Your task to perform on an android device: change your default location settings in chrome Image 0: 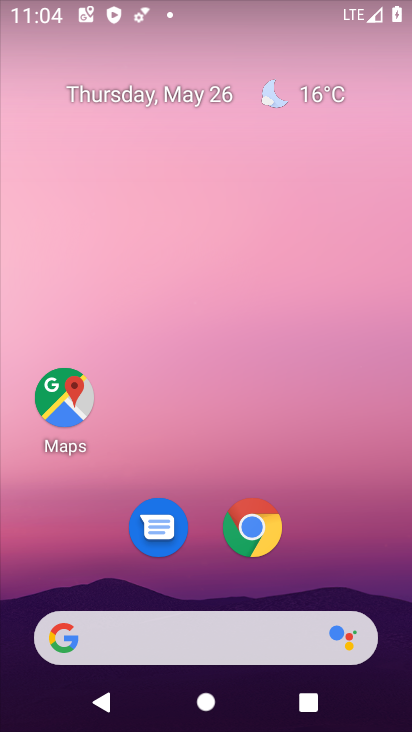
Step 0: click (250, 505)
Your task to perform on an android device: change your default location settings in chrome Image 1: 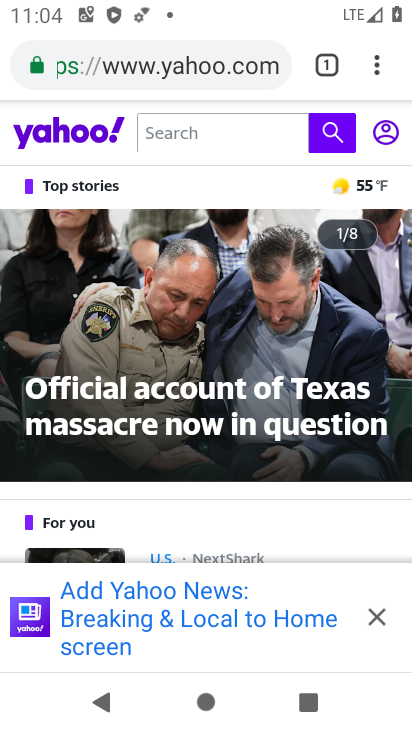
Step 1: click (383, 75)
Your task to perform on an android device: change your default location settings in chrome Image 2: 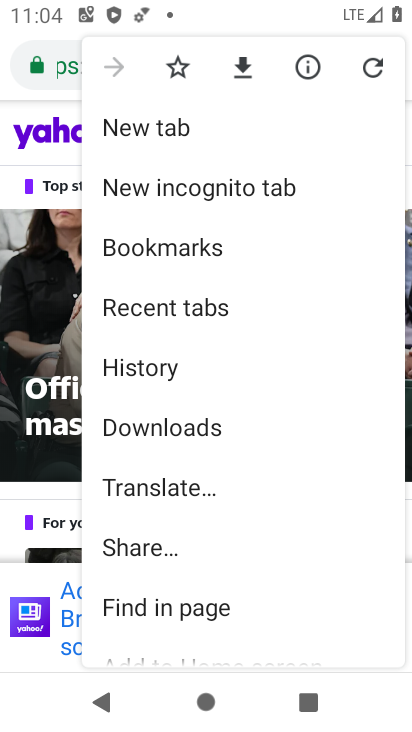
Step 2: drag from (164, 574) to (143, 242)
Your task to perform on an android device: change your default location settings in chrome Image 3: 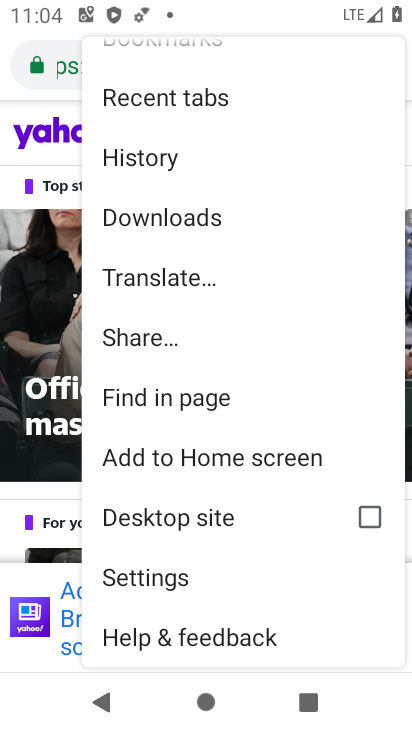
Step 3: click (179, 583)
Your task to perform on an android device: change your default location settings in chrome Image 4: 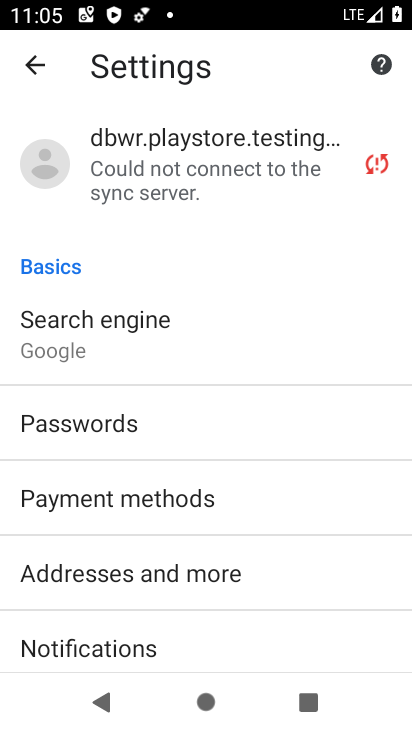
Step 4: drag from (167, 641) to (168, 177)
Your task to perform on an android device: change your default location settings in chrome Image 5: 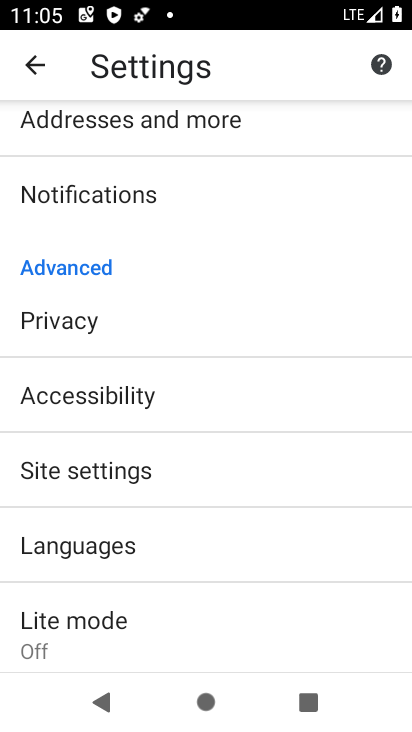
Step 5: click (122, 474)
Your task to perform on an android device: change your default location settings in chrome Image 6: 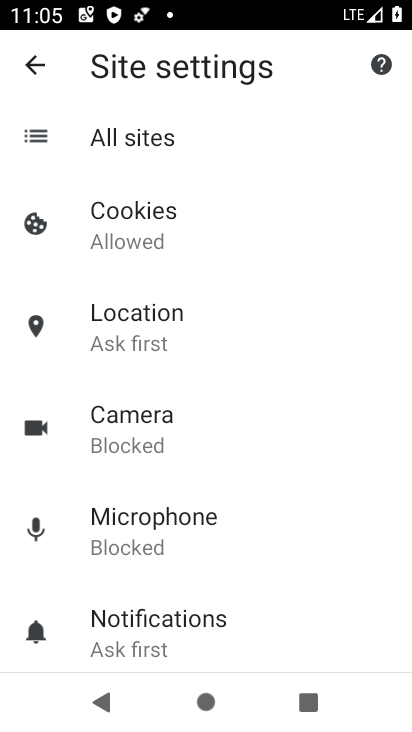
Step 6: click (178, 334)
Your task to perform on an android device: change your default location settings in chrome Image 7: 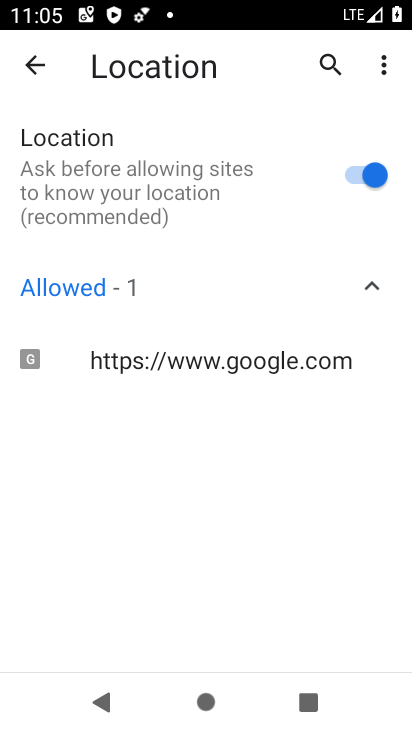
Step 7: click (358, 171)
Your task to perform on an android device: change your default location settings in chrome Image 8: 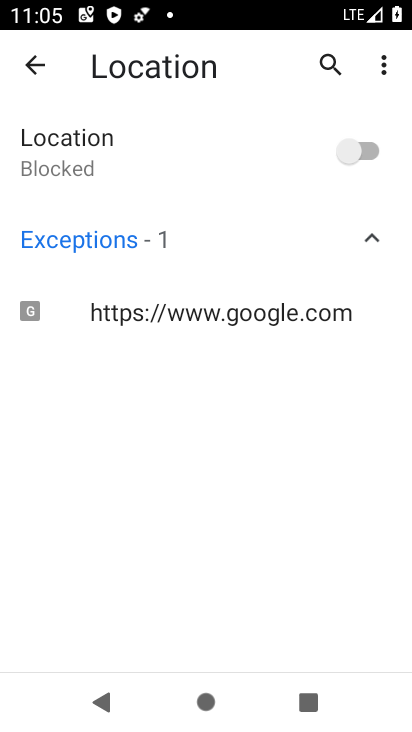
Step 8: task complete